Your task to perform on an android device: turn off sleep mode Image 0: 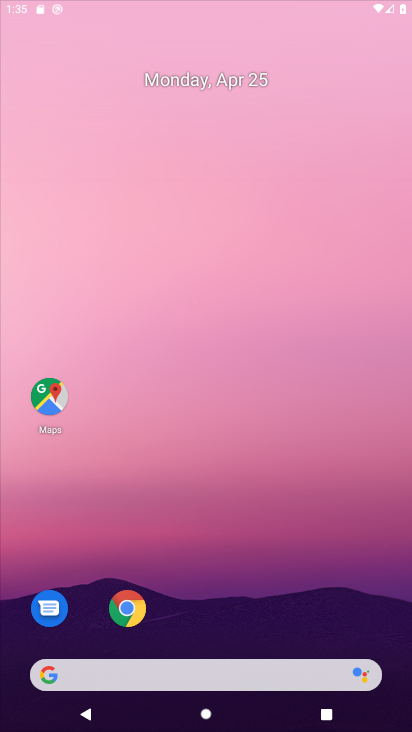
Step 0: drag from (351, 613) to (345, 391)
Your task to perform on an android device: turn off sleep mode Image 1: 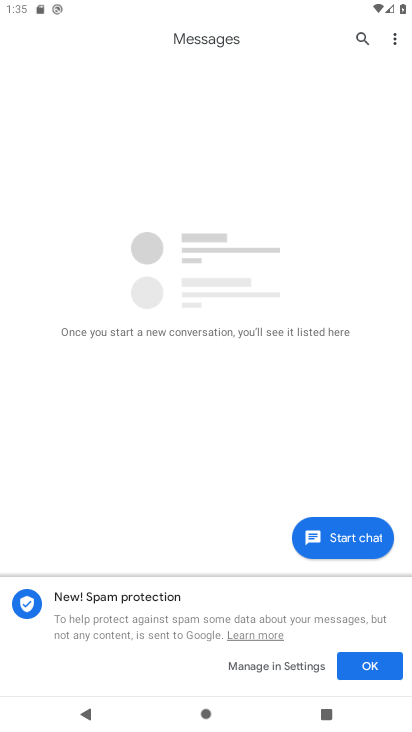
Step 1: press home button
Your task to perform on an android device: turn off sleep mode Image 2: 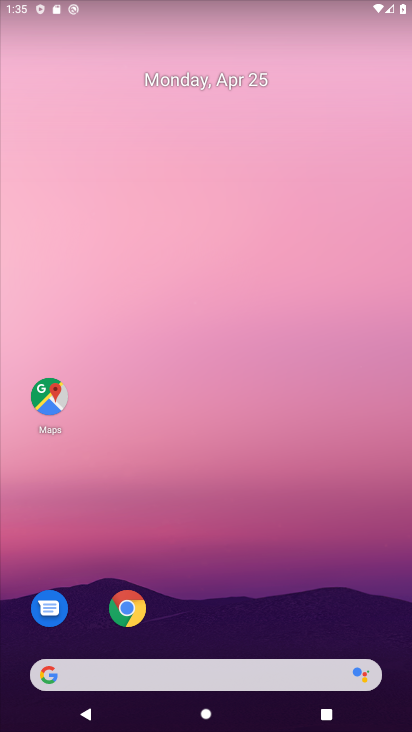
Step 2: drag from (361, 588) to (369, 81)
Your task to perform on an android device: turn off sleep mode Image 3: 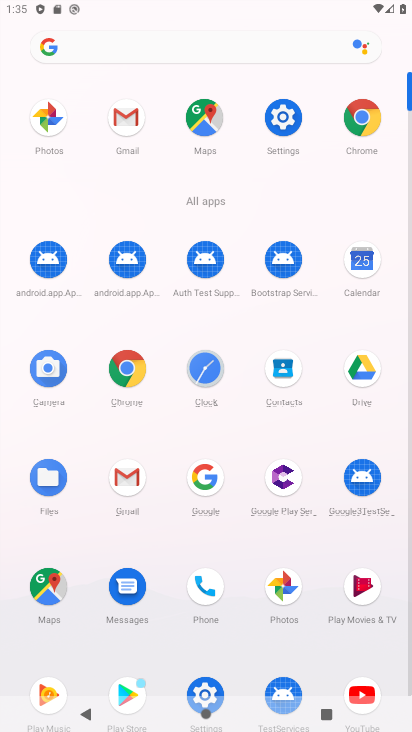
Step 3: click (279, 121)
Your task to perform on an android device: turn off sleep mode Image 4: 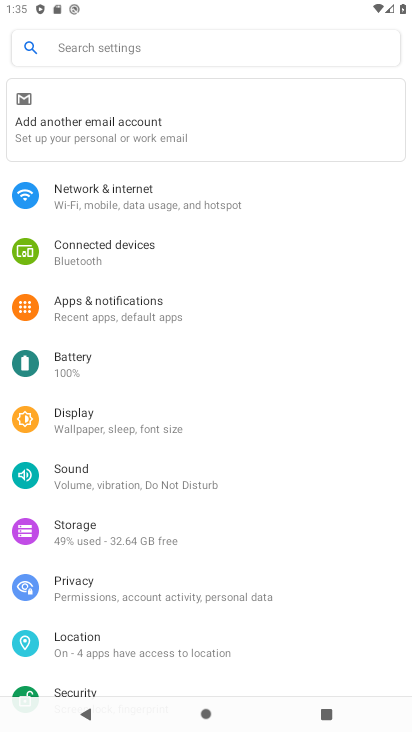
Step 4: drag from (335, 624) to (342, 433)
Your task to perform on an android device: turn off sleep mode Image 5: 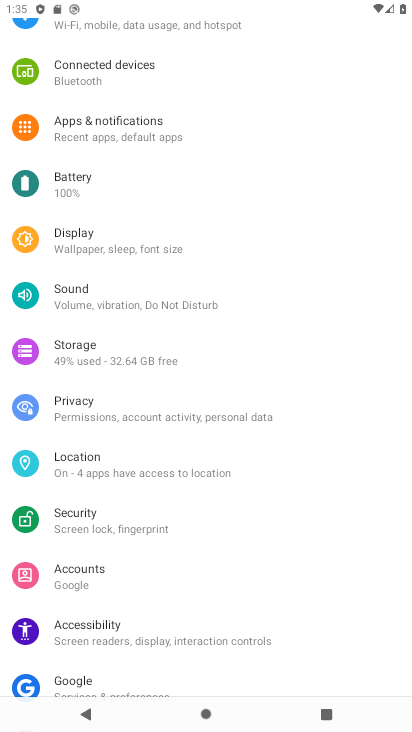
Step 5: drag from (328, 635) to (328, 350)
Your task to perform on an android device: turn off sleep mode Image 6: 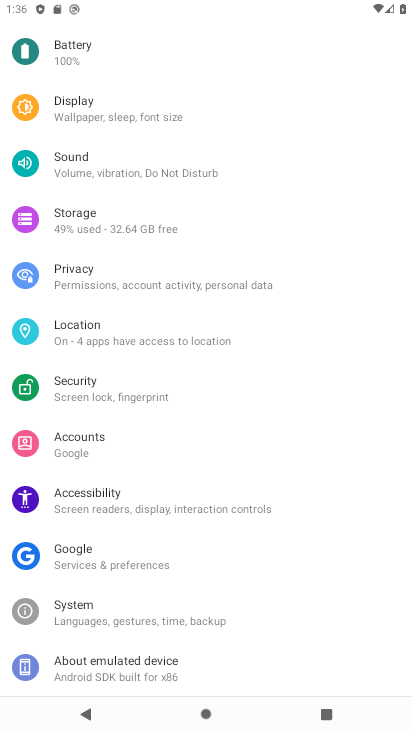
Step 6: drag from (329, 598) to (325, 334)
Your task to perform on an android device: turn off sleep mode Image 7: 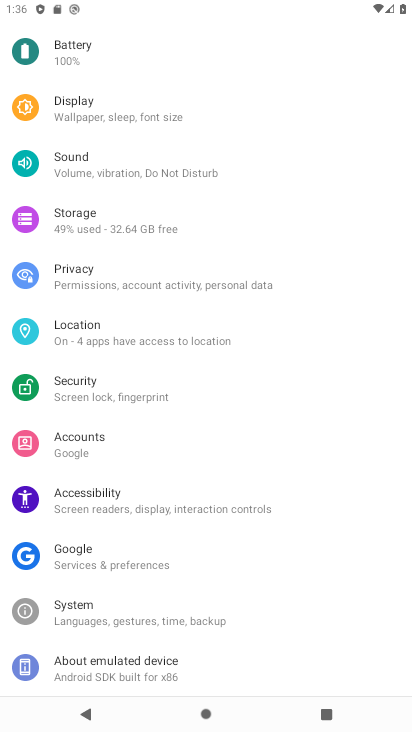
Step 7: drag from (330, 217) to (328, 355)
Your task to perform on an android device: turn off sleep mode Image 8: 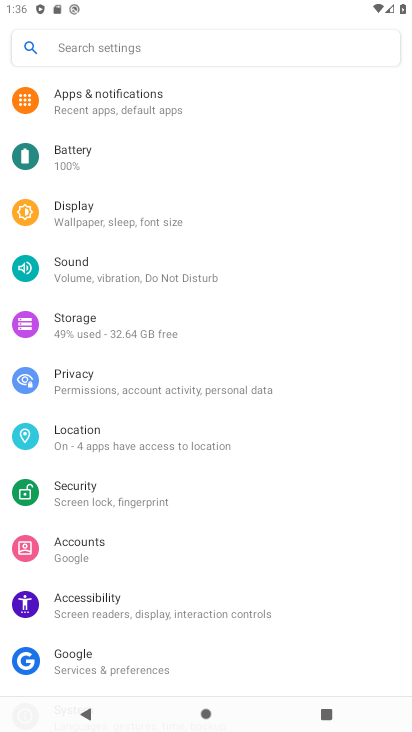
Step 8: drag from (323, 222) to (313, 409)
Your task to perform on an android device: turn off sleep mode Image 9: 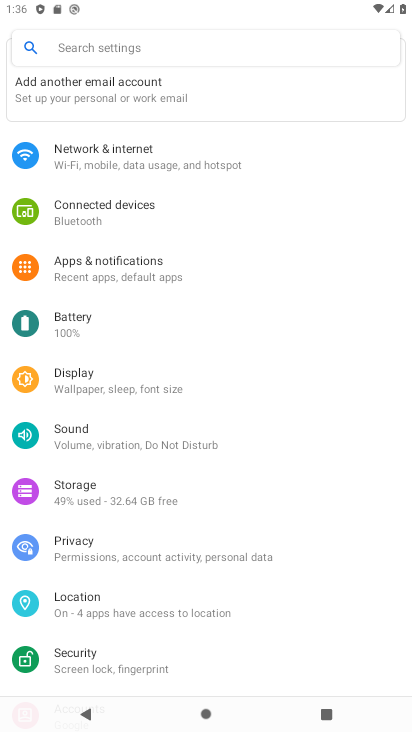
Step 9: drag from (292, 287) to (287, 427)
Your task to perform on an android device: turn off sleep mode Image 10: 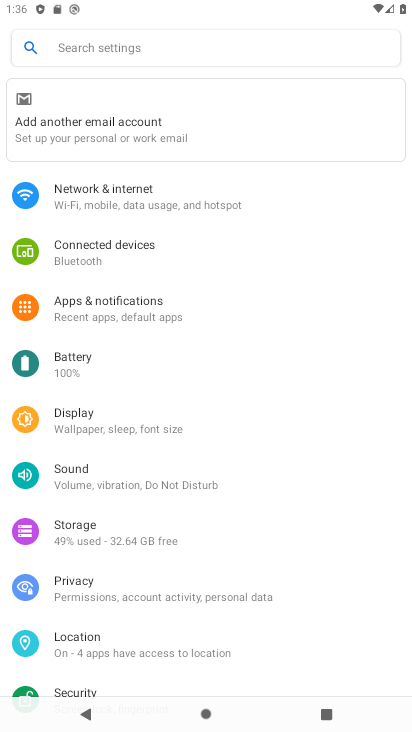
Step 10: click (165, 429)
Your task to perform on an android device: turn off sleep mode Image 11: 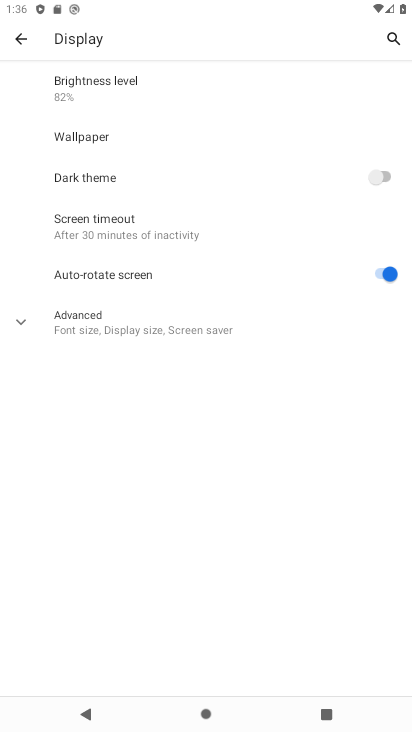
Step 11: click (197, 319)
Your task to perform on an android device: turn off sleep mode Image 12: 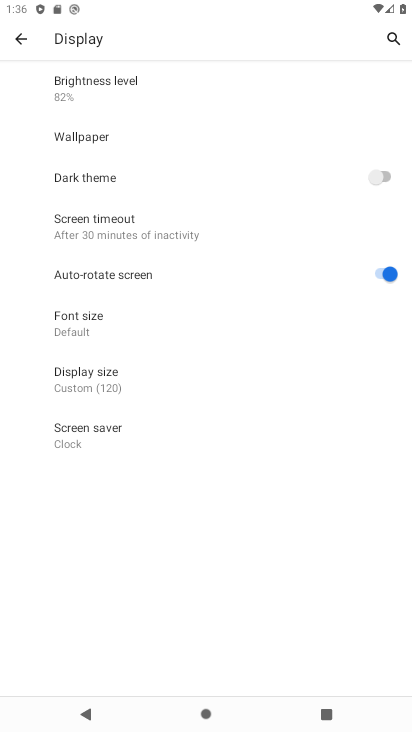
Step 12: task complete